Your task to perform on an android device: Search for seafood restaurants on Google Maps Image 0: 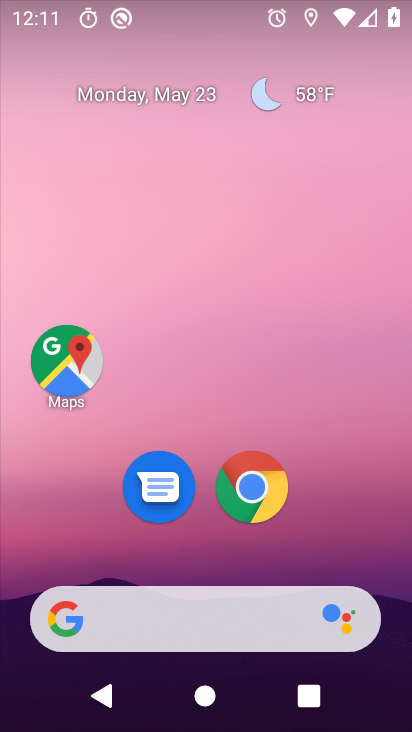
Step 0: drag from (369, 538) to (326, 159)
Your task to perform on an android device: Search for seafood restaurants on Google Maps Image 1: 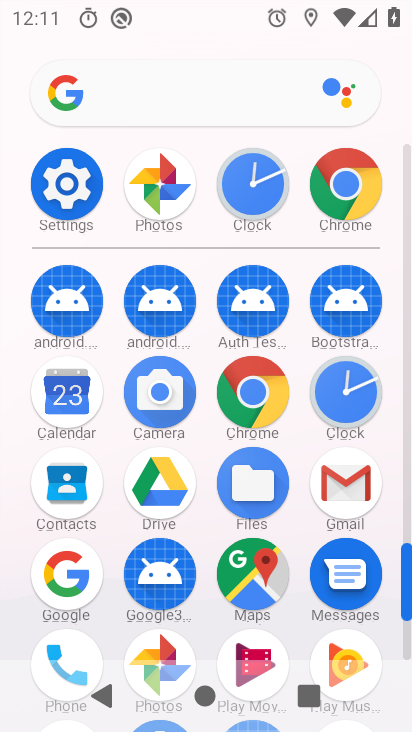
Step 1: click (244, 578)
Your task to perform on an android device: Search for seafood restaurants on Google Maps Image 2: 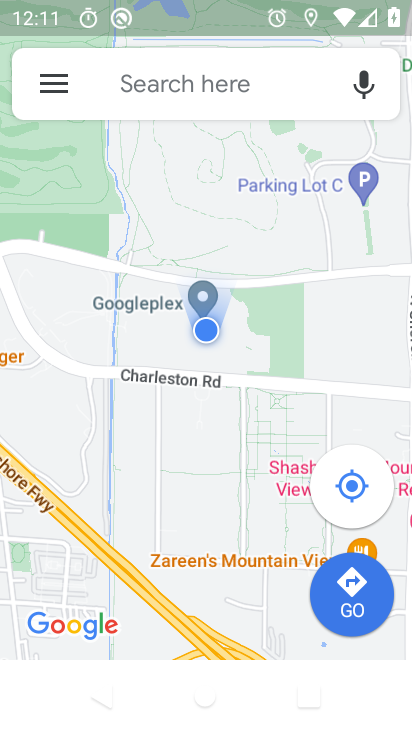
Step 2: click (173, 91)
Your task to perform on an android device: Search for seafood restaurants on Google Maps Image 3: 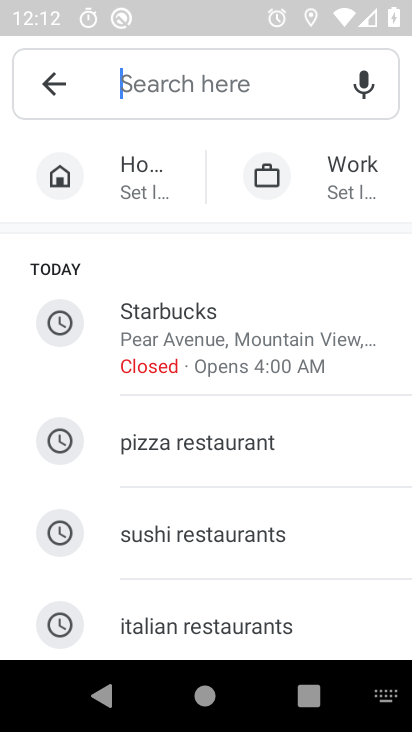
Step 3: type "seafood restaurants "
Your task to perform on an android device: Search for seafood restaurants on Google Maps Image 4: 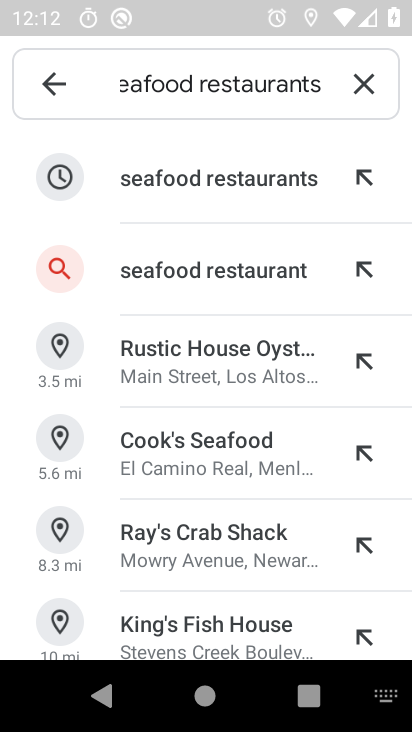
Step 4: click (182, 180)
Your task to perform on an android device: Search for seafood restaurants on Google Maps Image 5: 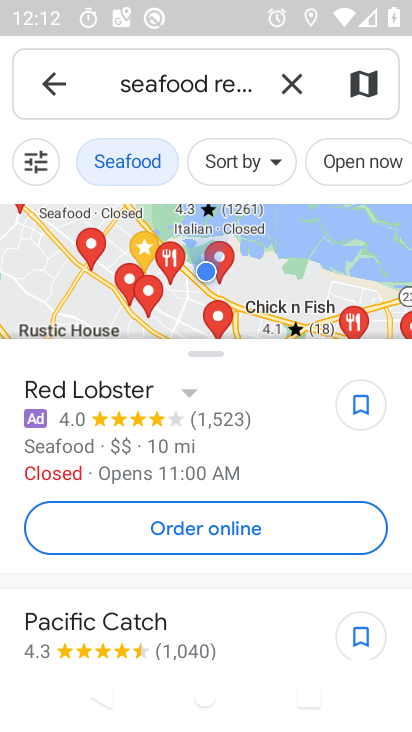
Step 5: task complete